Your task to perform on an android device: snooze an email in the gmail app Image 0: 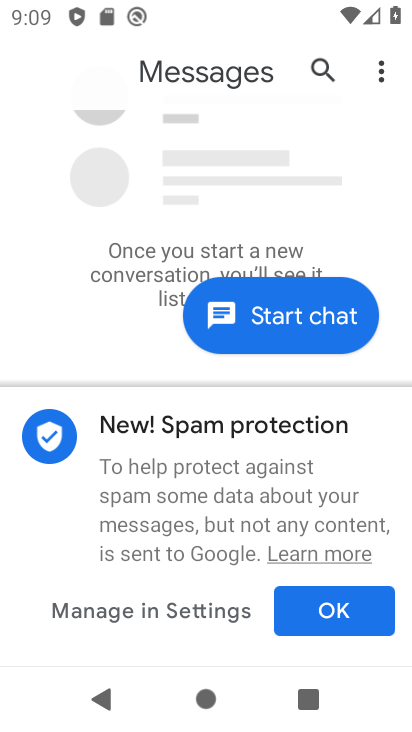
Step 0: press home button
Your task to perform on an android device: snooze an email in the gmail app Image 1: 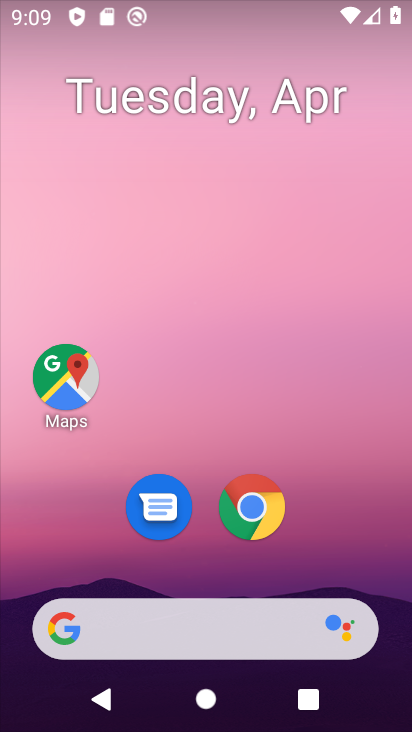
Step 1: drag from (323, 541) to (327, 54)
Your task to perform on an android device: snooze an email in the gmail app Image 2: 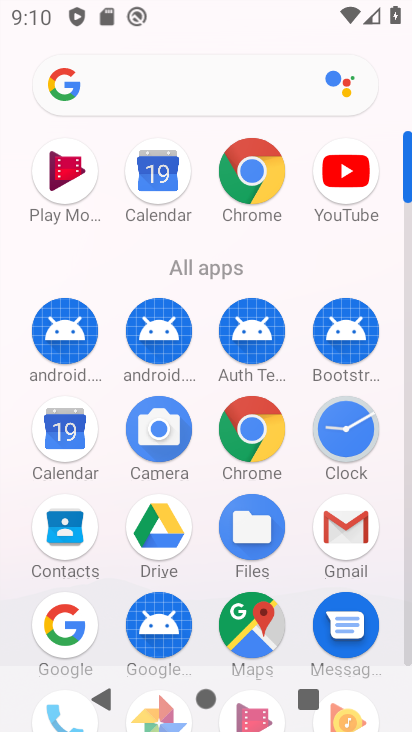
Step 2: click (347, 539)
Your task to perform on an android device: snooze an email in the gmail app Image 3: 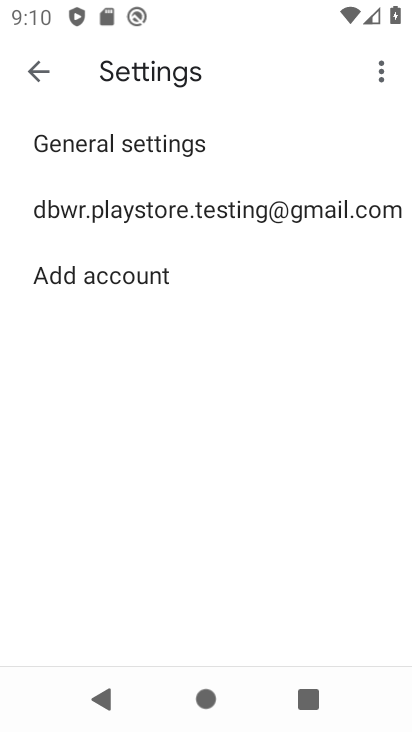
Step 3: click (36, 74)
Your task to perform on an android device: snooze an email in the gmail app Image 4: 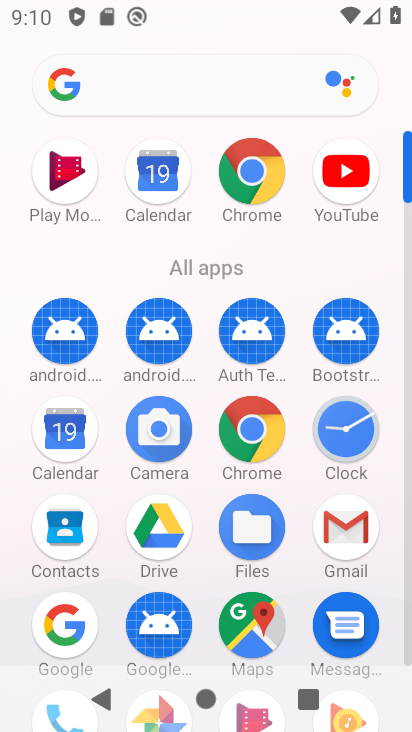
Step 4: click (347, 525)
Your task to perform on an android device: snooze an email in the gmail app Image 5: 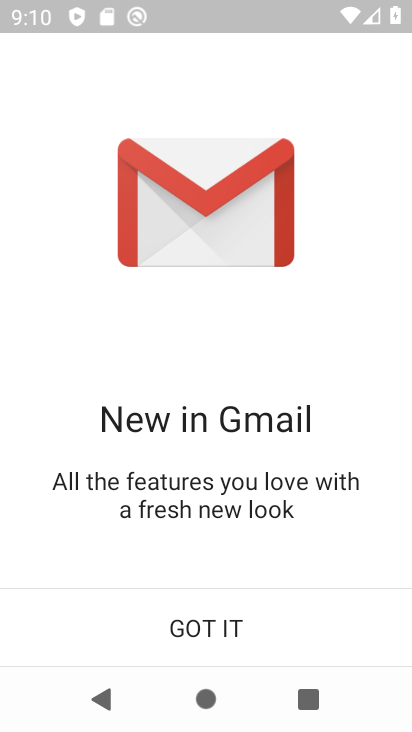
Step 5: click (226, 629)
Your task to perform on an android device: snooze an email in the gmail app Image 6: 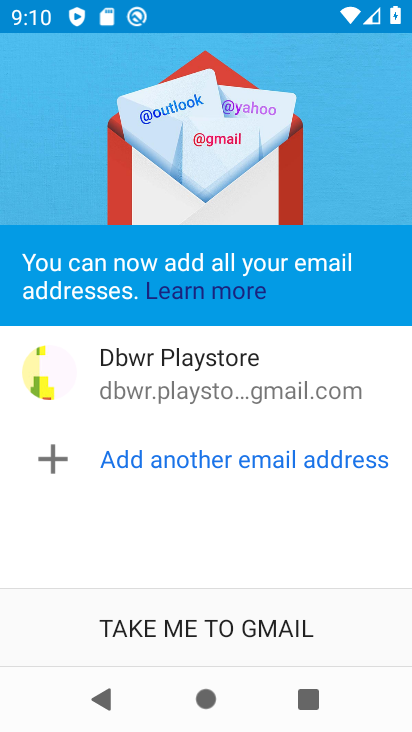
Step 6: click (226, 629)
Your task to perform on an android device: snooze an email in the gmail app Image 7: 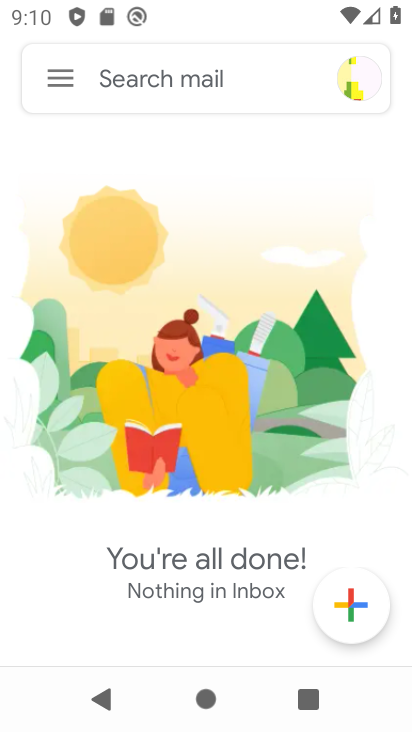
Step 7: click (66, 74)
Your task to perform on an android device: snooze an email in the gmail app Image 8: 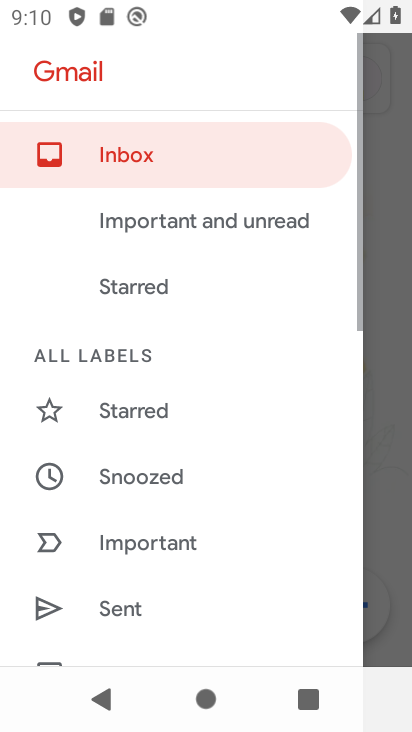
Step 8: drag from (242, 570) to (252, 173)
Your task to perform on an android device: snooze an email in the gmail app Image 9: 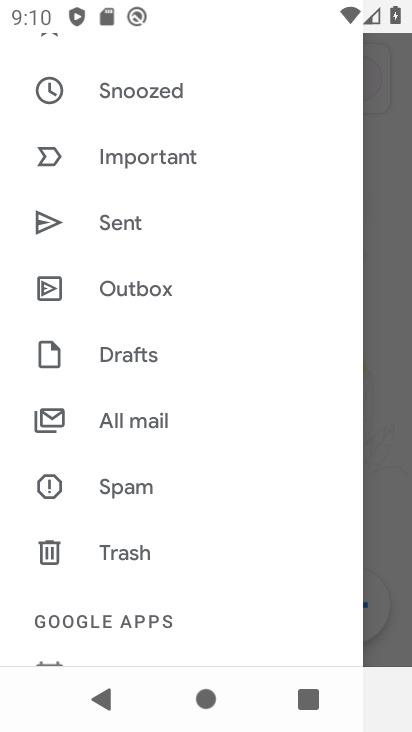
Step 9: click (151, 420)
Your task to perform on an android device: snooze an email in the gmail app Image 10: 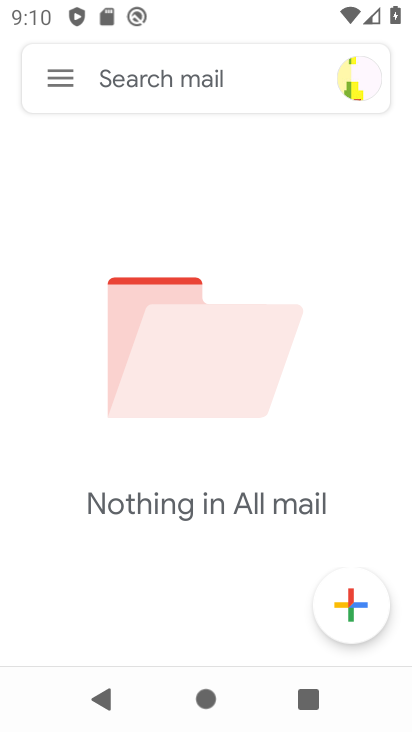
Step 10: task complete